Your task to perform on an android device: Open Chrome and go to settings Image 0: 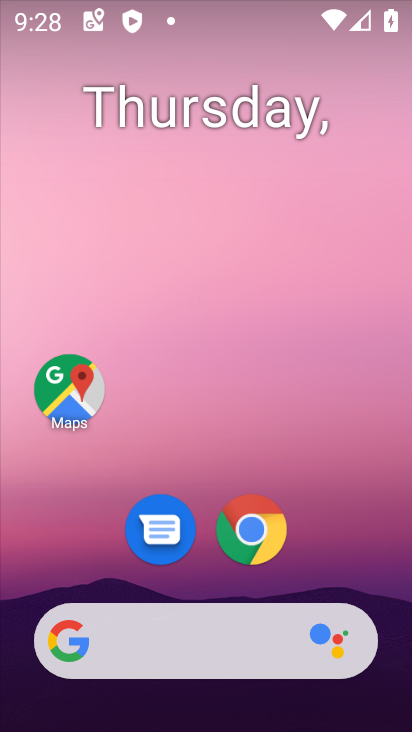
Step 0: click (252, 530)
Your task to perform on an android device: Open Chrome and go to settings Image 1: 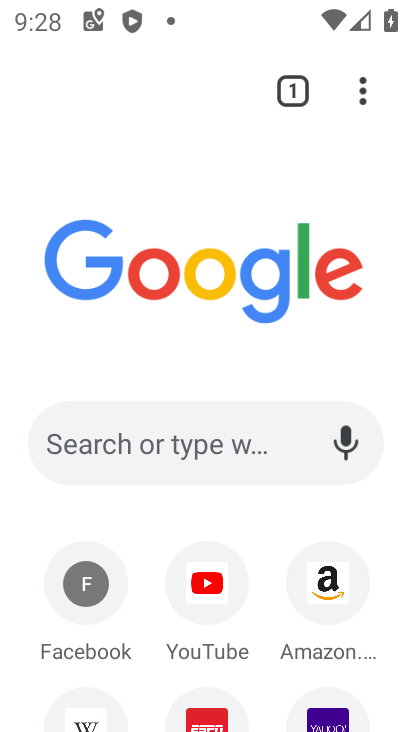
Step 1: click (363, 89)
Your task to perform on an android device: Open Chrome and go to settings Image 2: 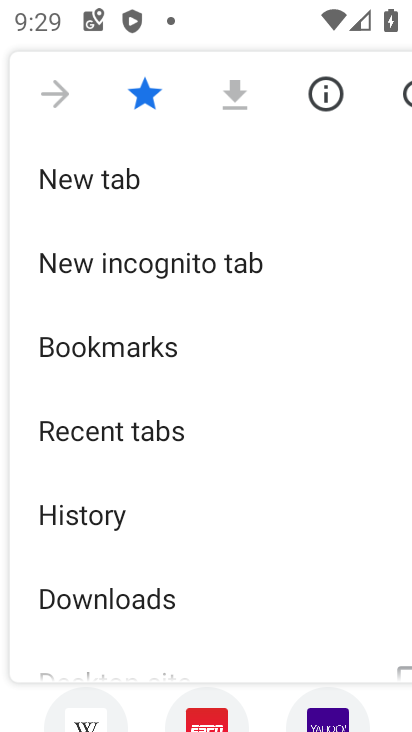
Step 2: drag from (168, 482) to (212, 374)
Your task to perform on an android device: Open Chrome and go to settings Image 3: 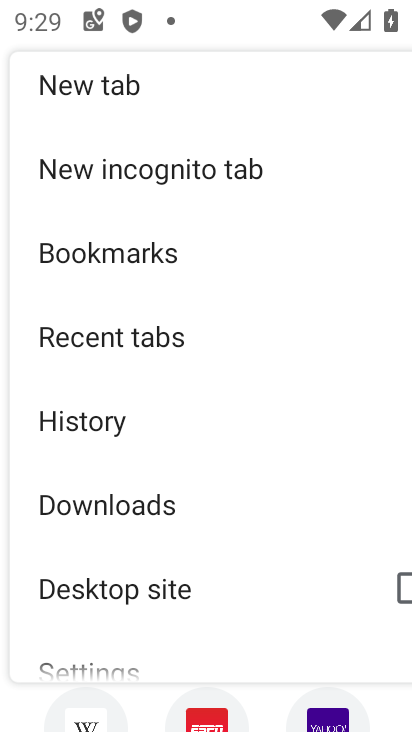
Step 3: drag from (114, 537) to (177, 440)
Your task to perform on an android device: Open Chrome and go to settings Image 4: 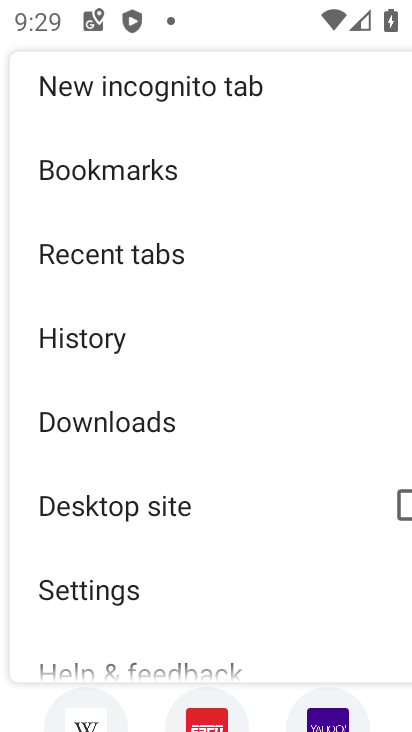
Step 4: click (104, 599)
Your task to perform on an android device: Open Chrome and go to settings Image 5: 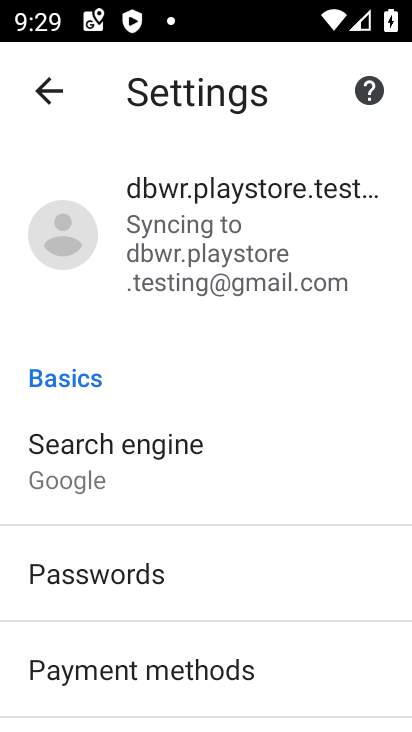
Step 5: task complete